Your task to perform on an android device: Open settings on Google Maps Image 0: 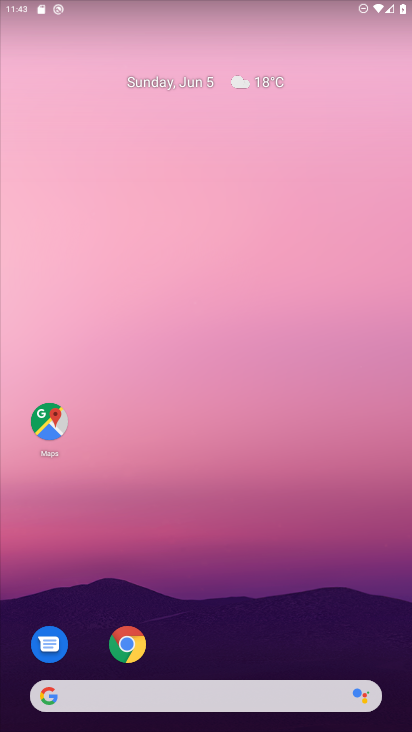
Step 0: drag from (206, 262) to (187, 202)
Your task to perform on an android device: Open settings on Google Maps Image 1: 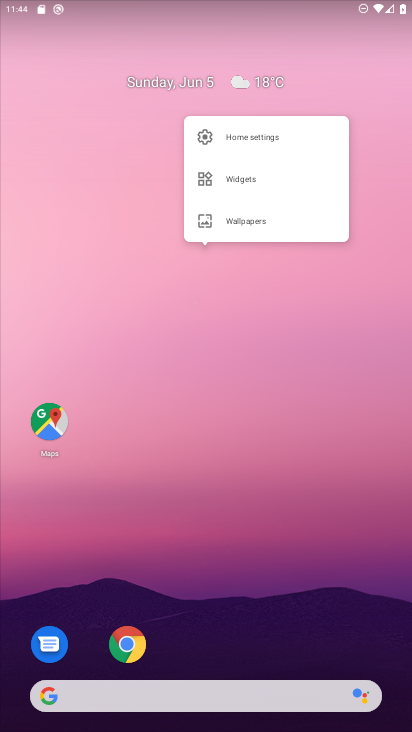
Step 1: click (189, 422)
Your task to perform on an android device: Open settings on Google Maps Image 2: 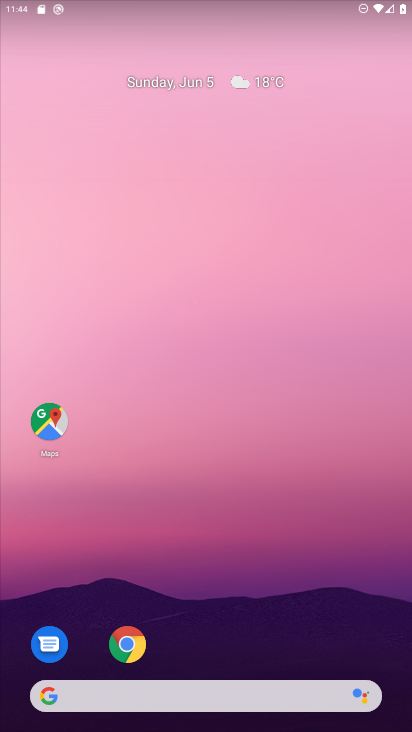
Step 2: drag from (238, 688) to (213, 74)
Your task to perform on an android device: Open settings on Google Maps Image 3: 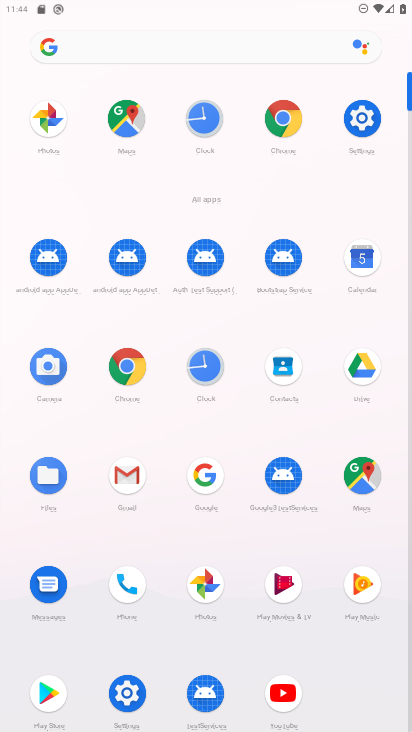
Step 3: click (373, 480)
Your task to perform on an android device: Open settings on Google Maps Image 4: 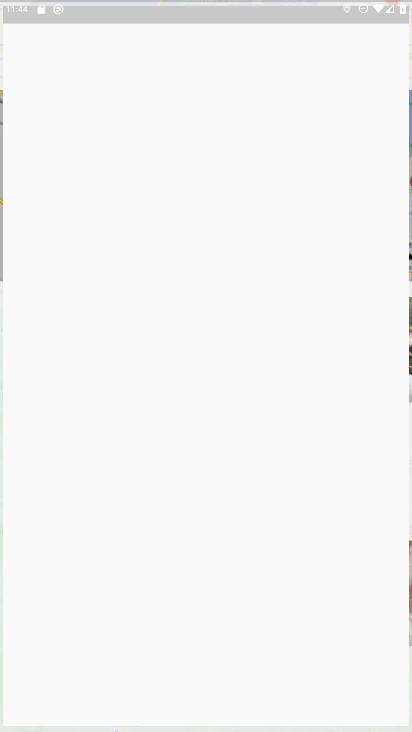
Step 4: task complete